Your task to perform on an android device: Open calendar and show me the third week of next month Image 0: 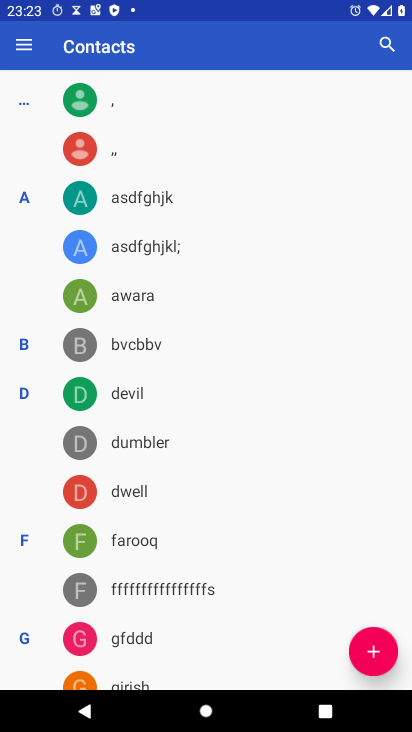
Step 0: press home button
Your task to perform on an android device: Open calendar and show me the third week of next month Image 1: 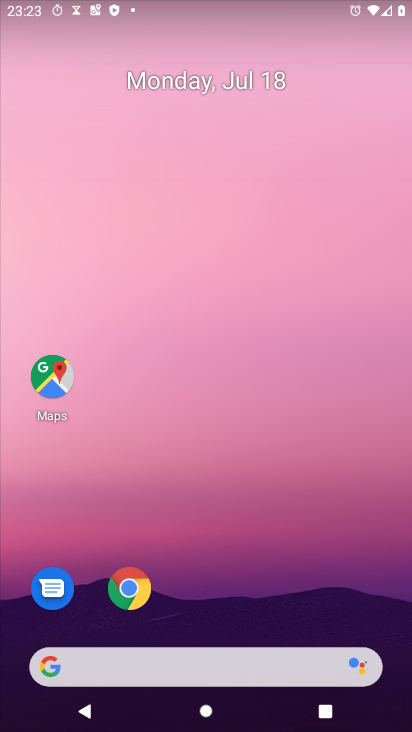
Step 1: drag from (168, 660) to (233, 248)
Your task to perform on an android device: Open calendar and show me the third week of next month Image 2: 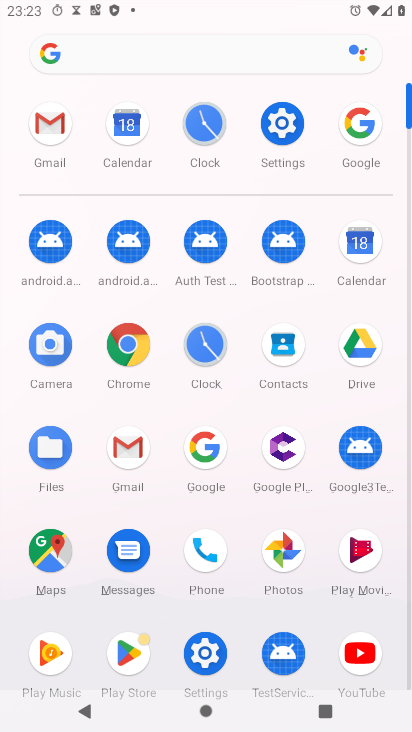
Step 2: click (121, 126)
Your task to perform on an android device: Open calendar and show me the third week of next month Image 3: 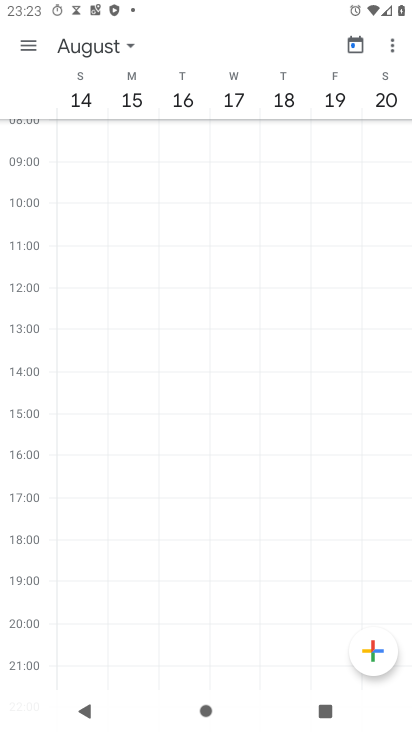
Step 3: click (86, 51)
Your task to perform on an android device: Open calendar and show me the third week of next month Image 4: 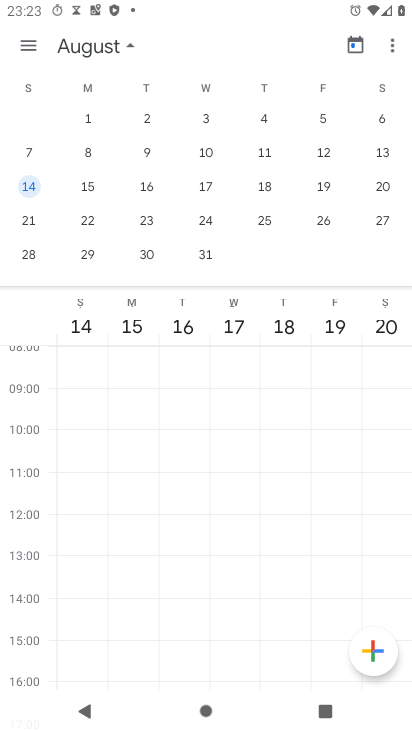
Step 4: task complete